Your task to perform on an android device: Go to battery settings Image 0: 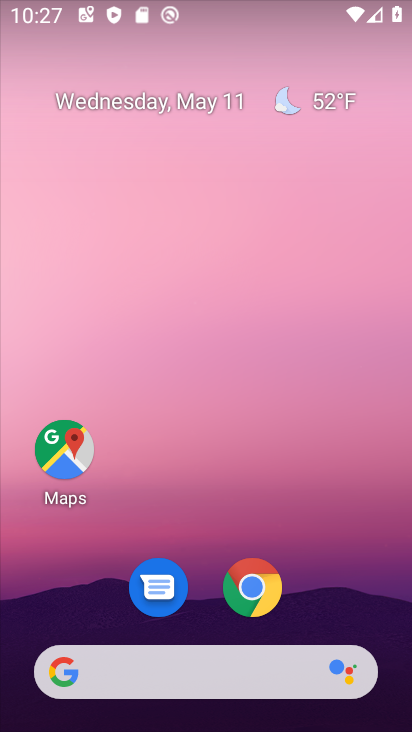
Step 0: drag from (274, 664) to (178, 286)
Your task to perform on an android device: Go to battery settings Image 1: 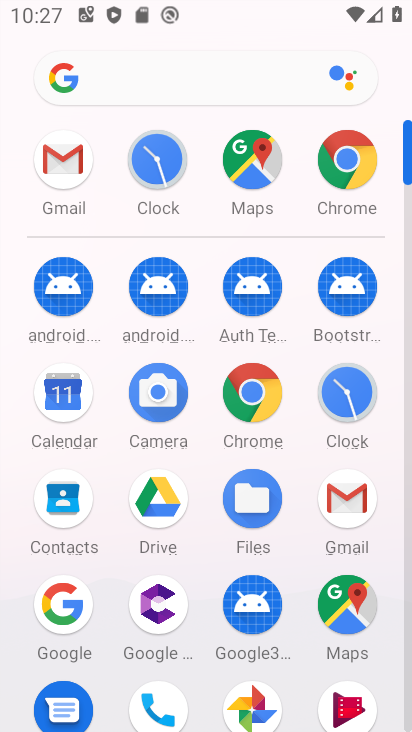
Step 1: drag from (124, 349) to (154, 241)
Your task to perform on an android device: Go to battery settings Image 2: 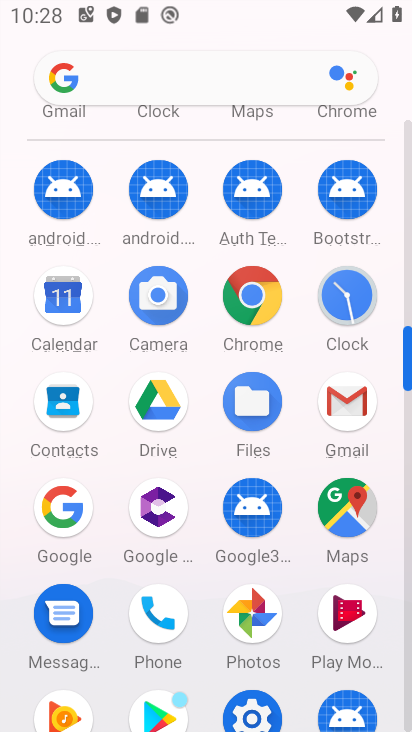
Step 2: click (261, 709)
Your task to perform on an android device: Go to battery settings Image 3: 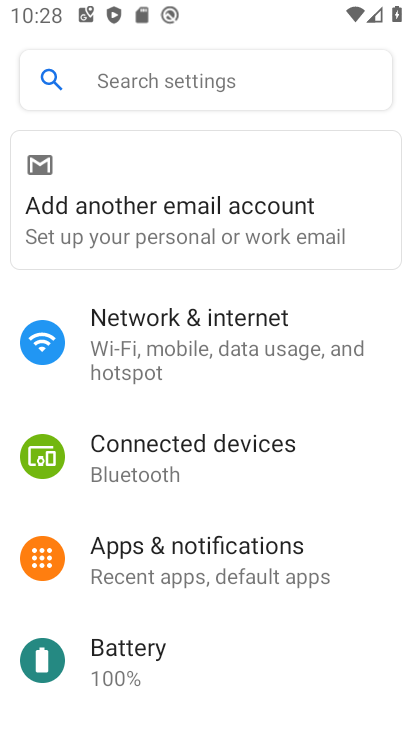
Step 3: click (175, 672)
Your task to perform on an android device: Go to battery settings Image 4: 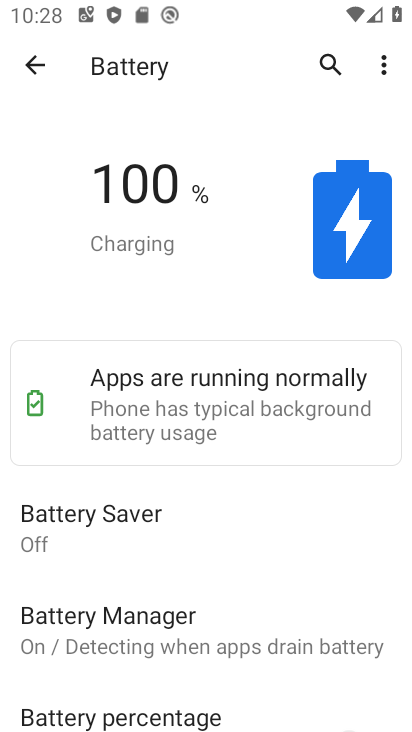
Step 4: task complete